Your task to perform on an android device: Open Reddit.com Image 0: 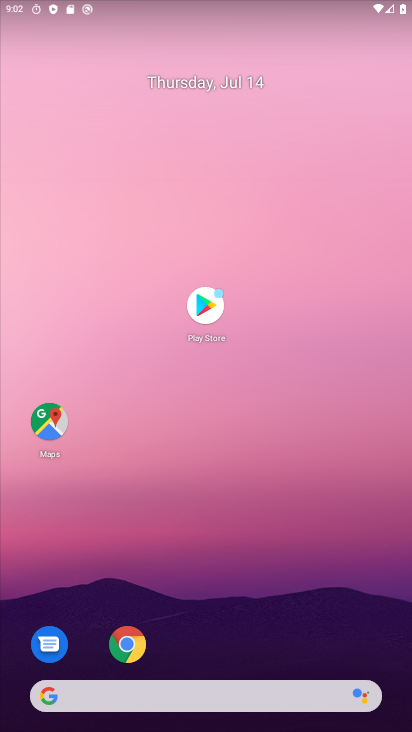
Step 0: drag from (181, 640) to (162, 174)
Your task to perform on an android device: Open Reddit.com Image 1: 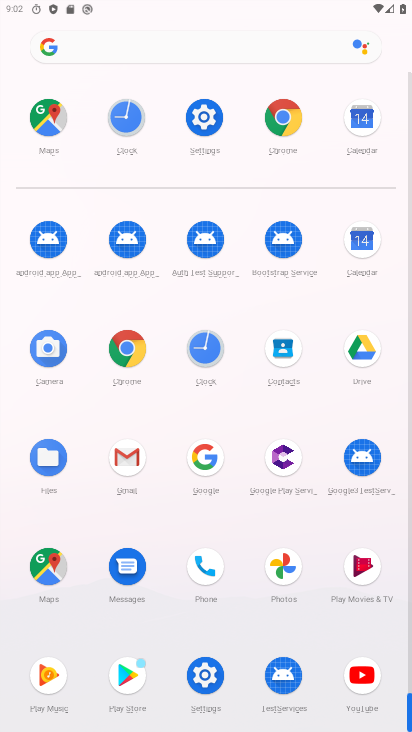
Step 1: click (142, 46)
Your task to perform on an android device: Open Reddit.com Image 2: 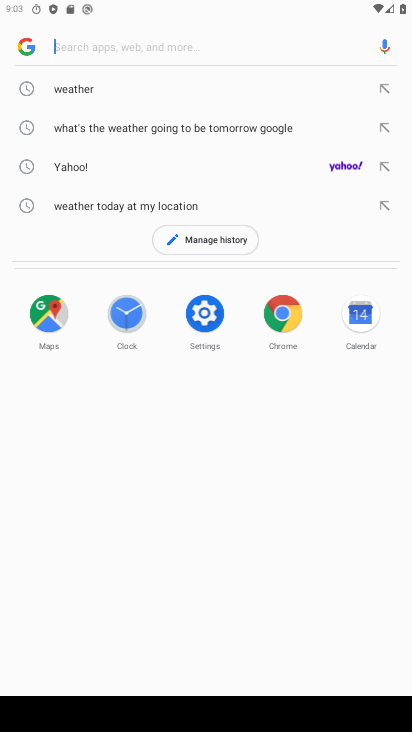
Step 2: type "reddit.com"
Your task to perform on an android device: Open Reddit.com Image 3: 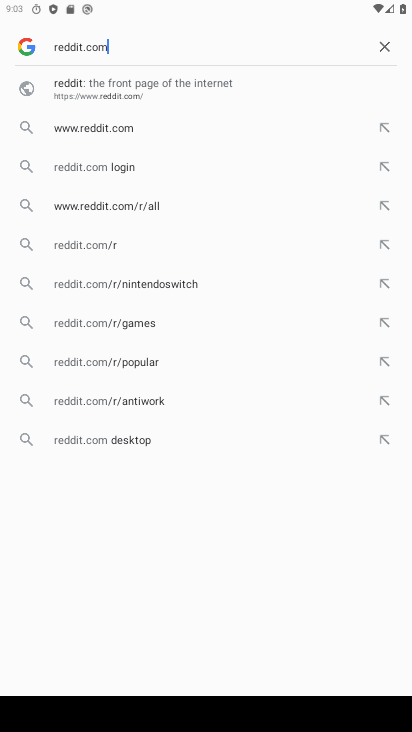
Step 3: click (145, 123)
Your task to perform on an android device: Open Reddit.com Image 4: 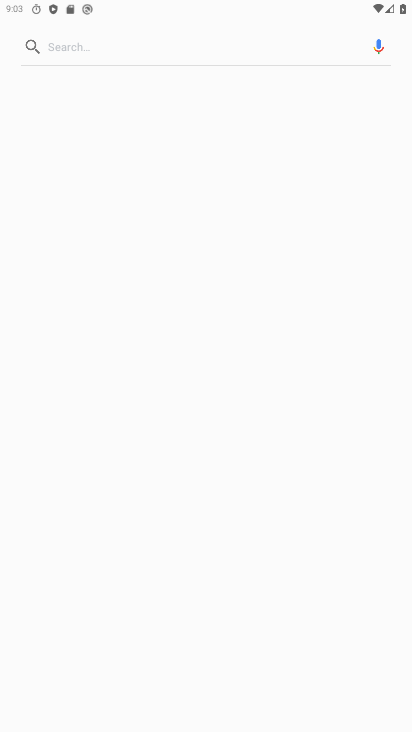
Step 4: task complete